Your task to perform on an android device: all mails in gmail Image 0: 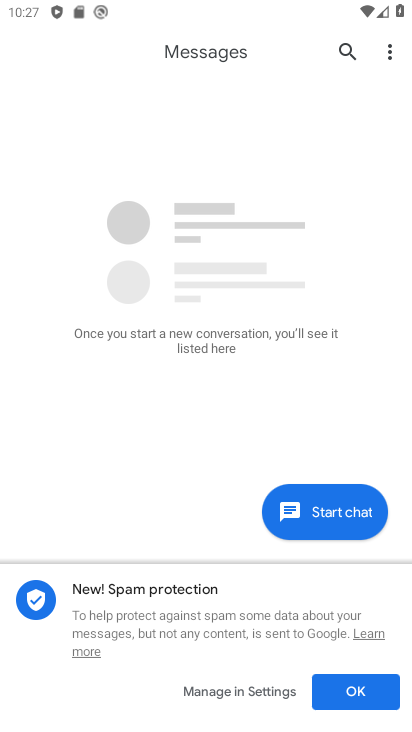
Step 0: press home button
Your task to perform on an android device: all mails in gmail Image 1: 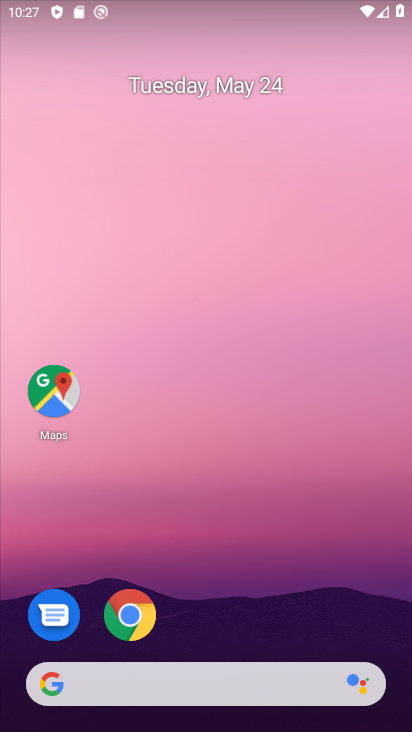
Step 1: drag from (226, 590) to (225, 139)
Your task to perform on an android device: all mails in gmail Image 2: 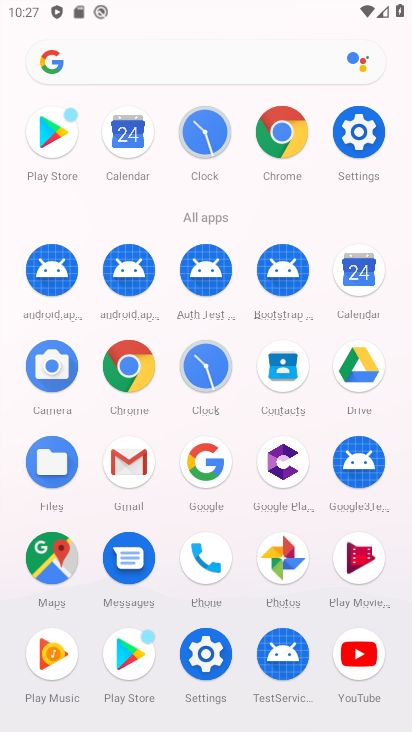
Step 2: click (124, 475)
Your task to perform on an android device: all mails in gmail Image 3: 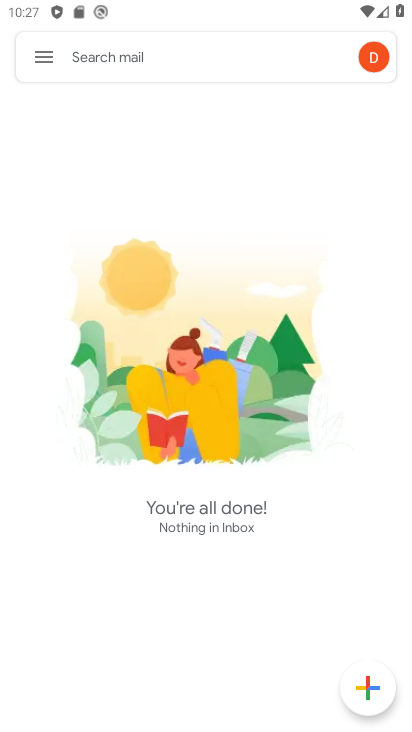
Step 3: click (28, 52)
Your task to perform on an android device: all mails in gmail Image 4: 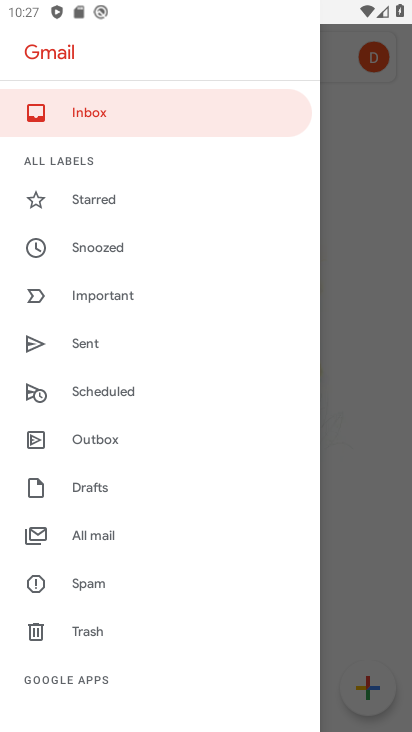
Step 4: click (72, 526)
Your task to perform on an android device: all mails in gmail Image 5: 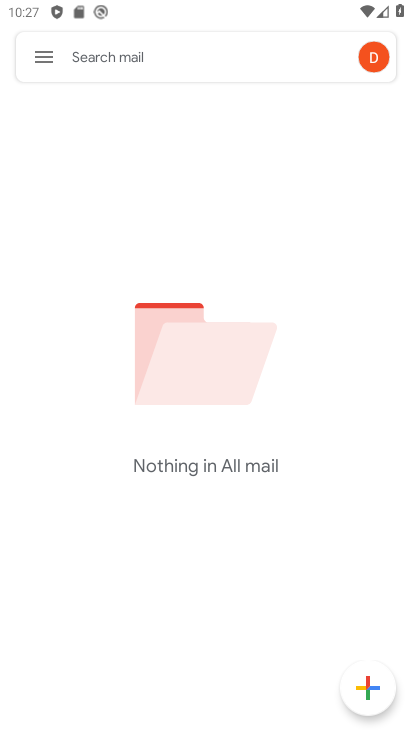
Step 5: click (42, 52)
Your task to perform on an android device: all mails in gmail Image 6: 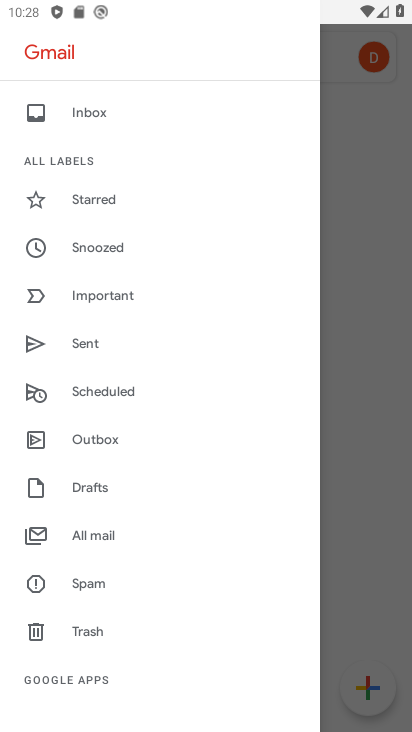
Step 6: task complete